Your task to perform on an android device: Set the phone to "Do not disturb". Image 0: 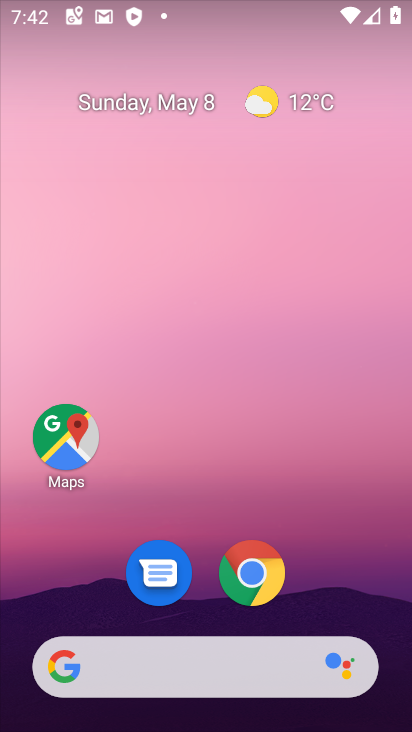
Step 0: drag from (354, 612) to (370, 22)
Your task to perform on an android device: Set the phone to "Do not disturb". Image 1: 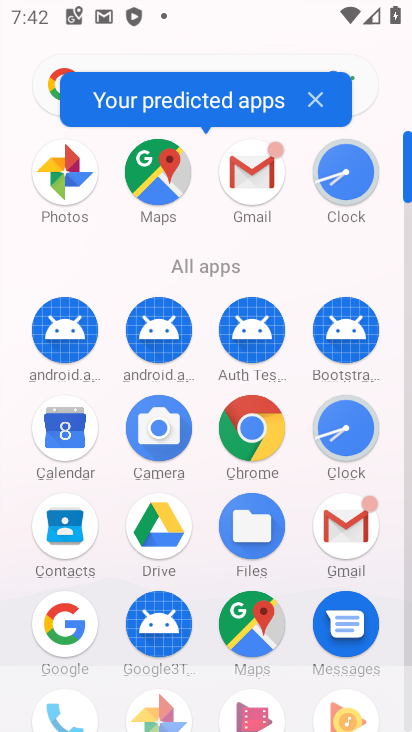
Step 1: drag from (409, 597) to (412, 543)
Your task to perform on an android device: Set the phone to "Do not disturb". Image 2: 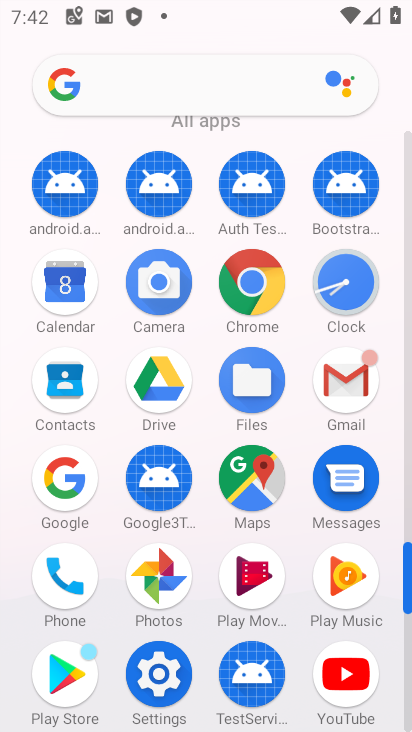
Step 2: click (138, 677)
Your task to perform on an android device: Set the phone to "Do not disturb". Image 3: 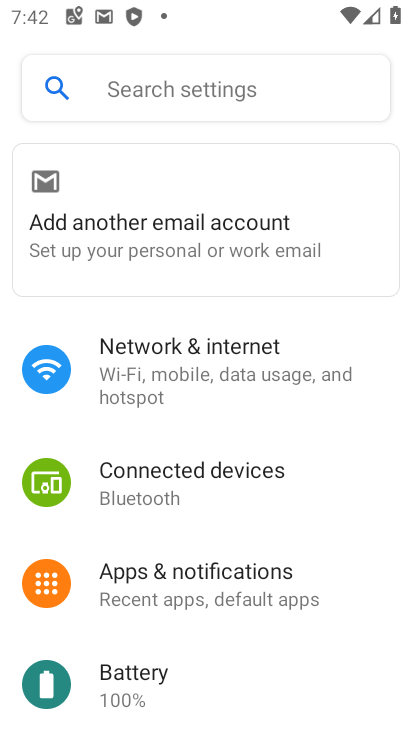
Step 3: drag from (369, 642) to (391, 288)
Your task to perform on an android device: Set the phone to "Do not disturb". Image 4: 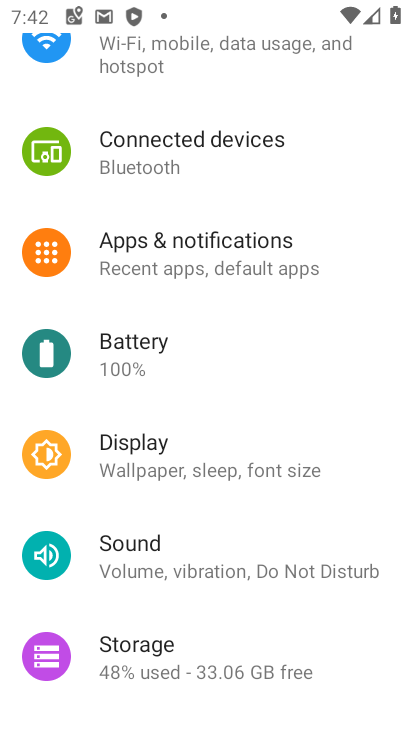
Step 4: click (136, 556)
Your task to perform on an android device: Set the phone to "Do not disturb". Image 5: 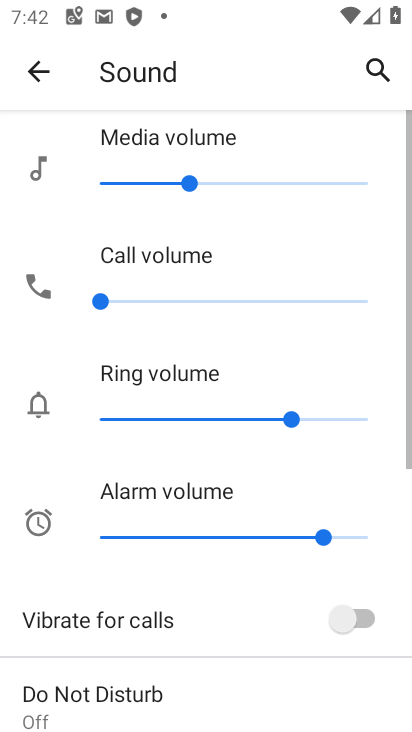
Step 5: click (110, 699)
Your task to perform on an android device: Set the phone to "Do not disturb". Image 6: 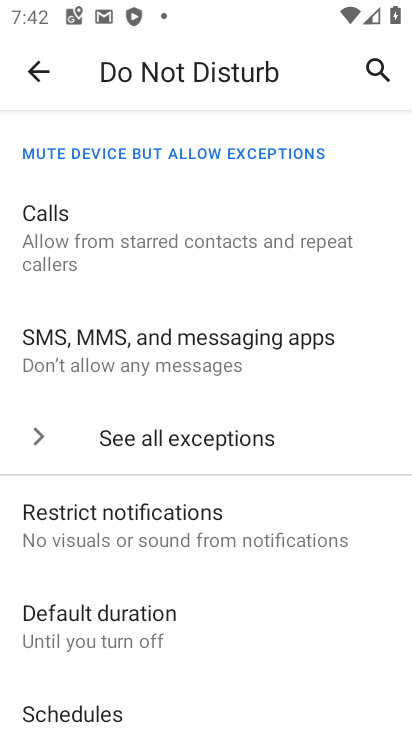
Step 6: drag from (302, 633) to (290, 140)
Your task to perform on an android device: Set the phone to "Do not disturb". Image 7: 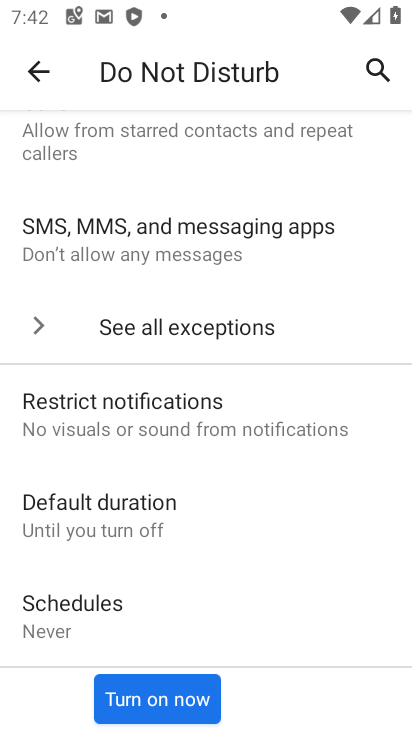
Step 7: click (136, 700)
Your task to perform on an android device: Set the phone to "Do not disturb". Image 8: 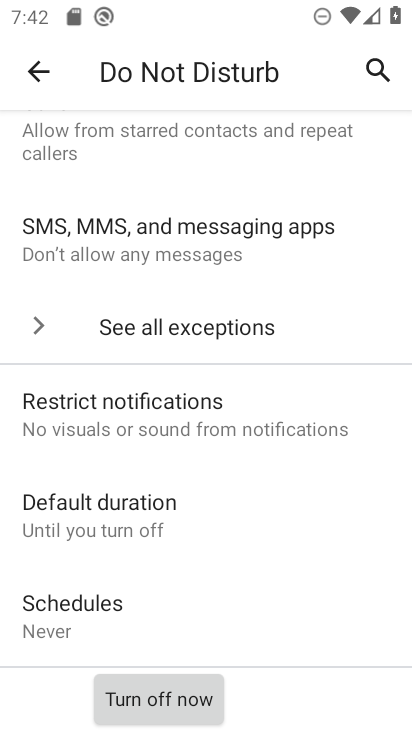
Step 8: task complete